Your task to perform on an android device: Search for a new lawnmower on Lowes.com Image 0: 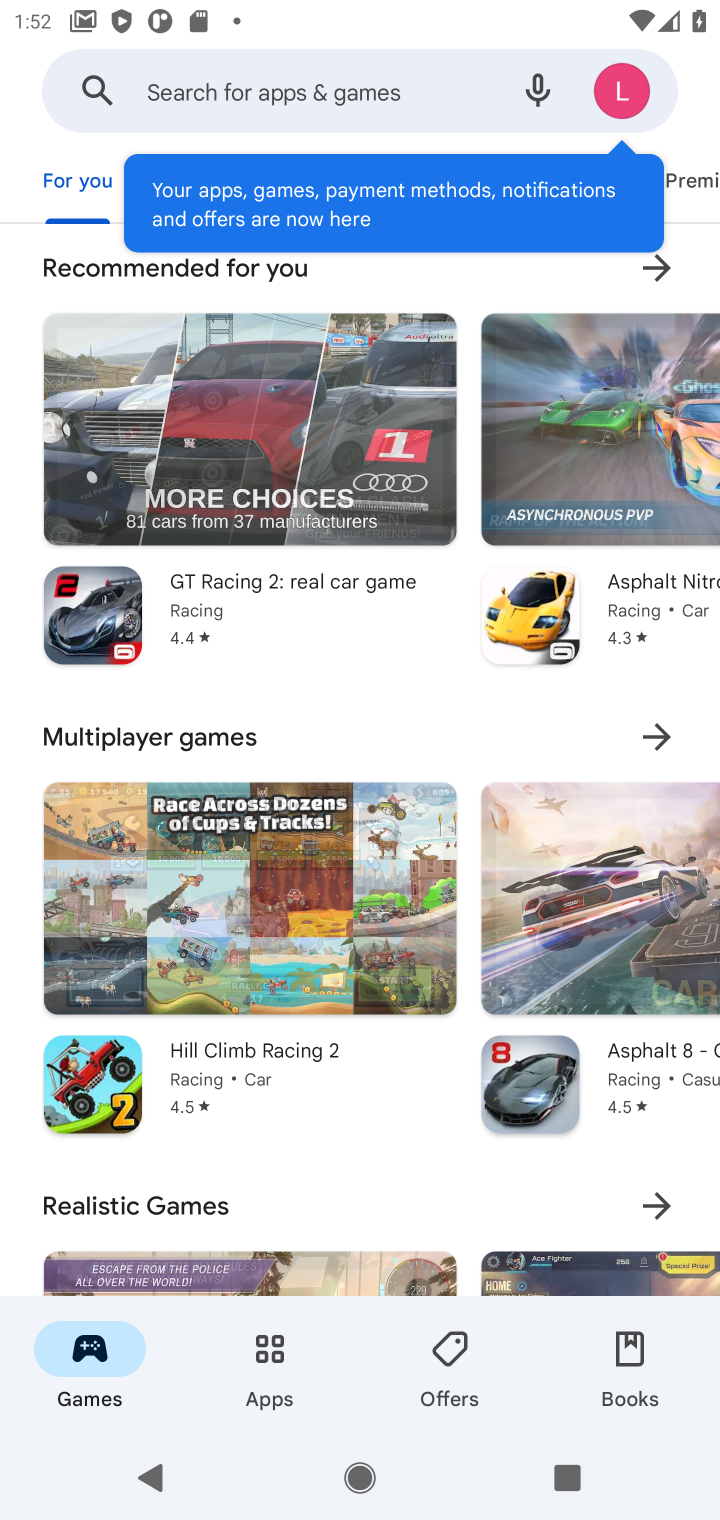
Step 0: press home button
Your task to perform on an android device: Search for a new lawnmower on Lowes.com Image 1: 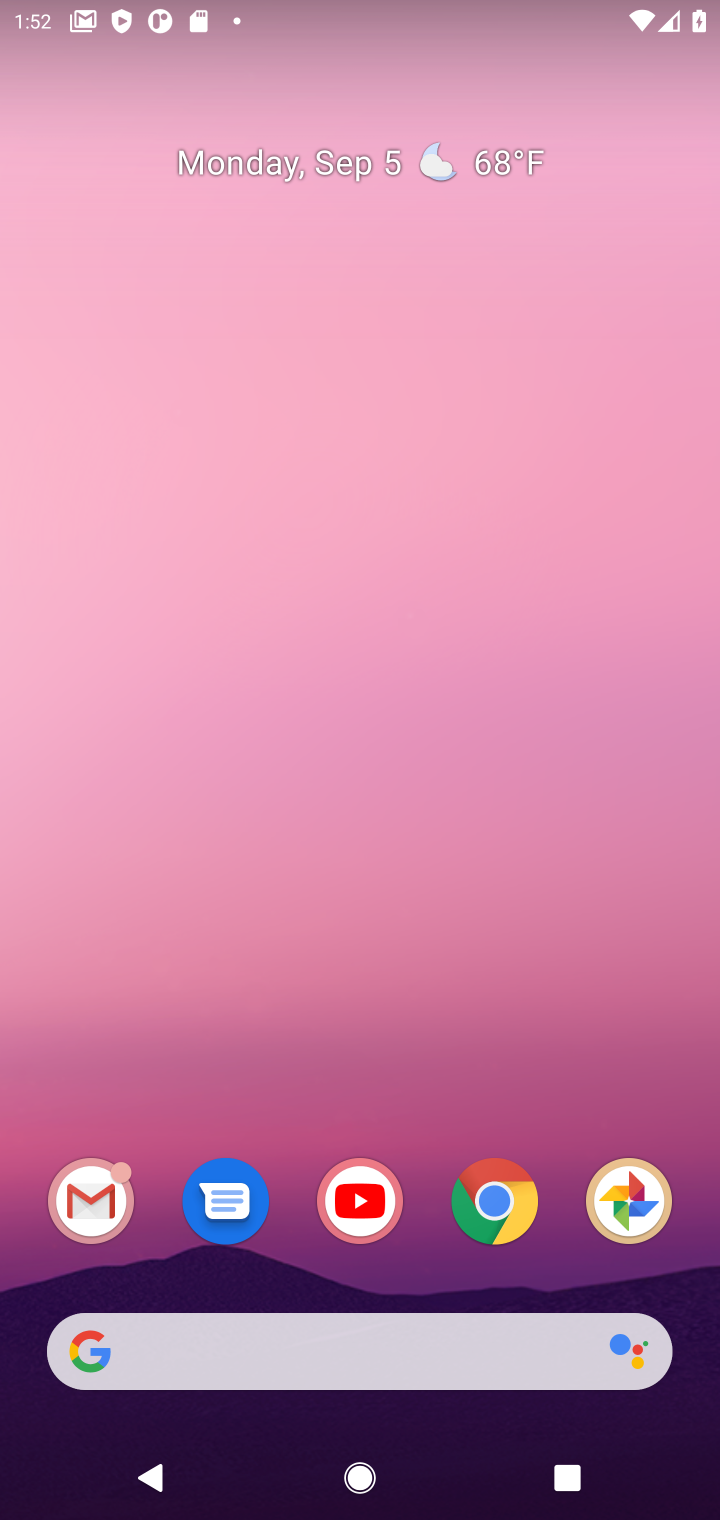
Step 1: click (501, 1216)
Your task to perform on an android device: Search for a new lawnmower on Lowes.com Image 2: 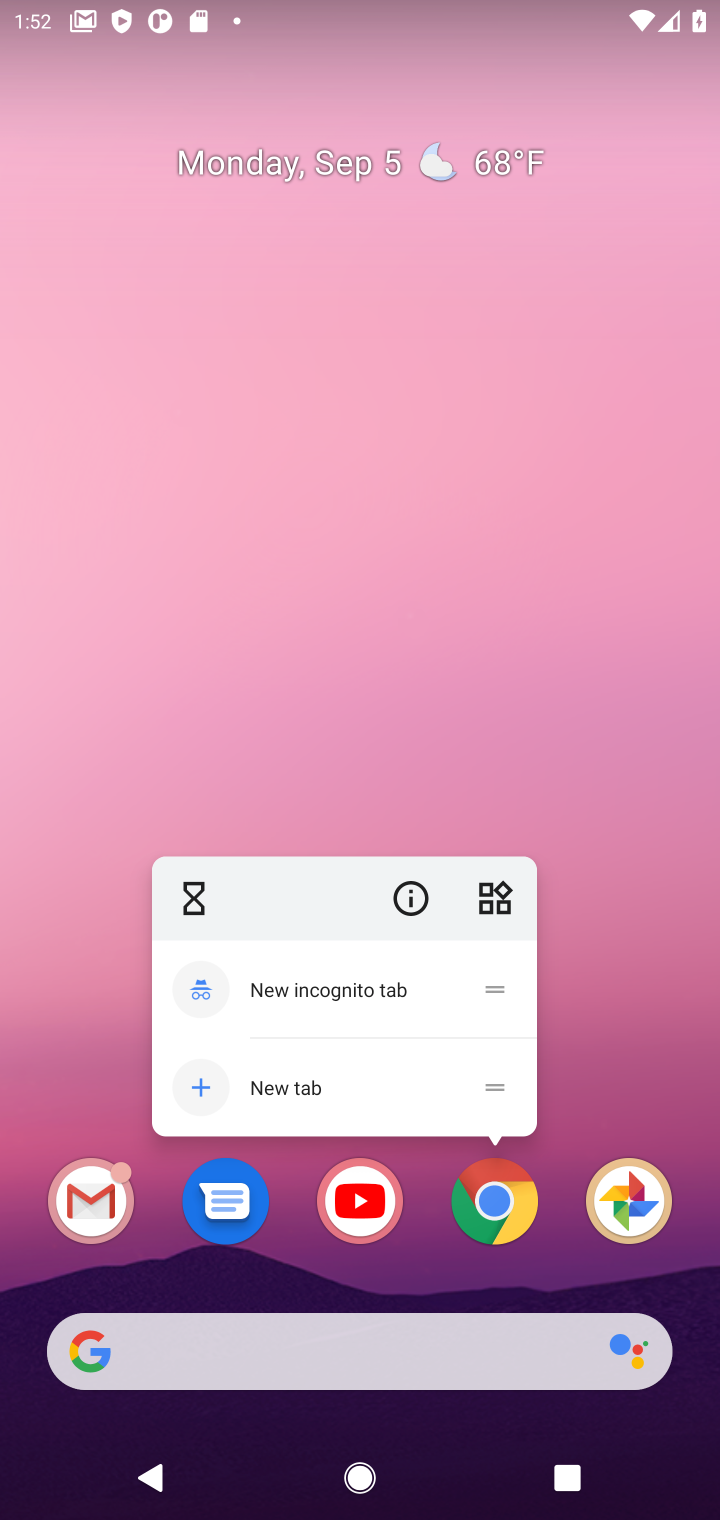
Step 2: click (501, 1221)
Your task to perform on an android device: Search for a new lawnmower on Lowes.com Image 3: 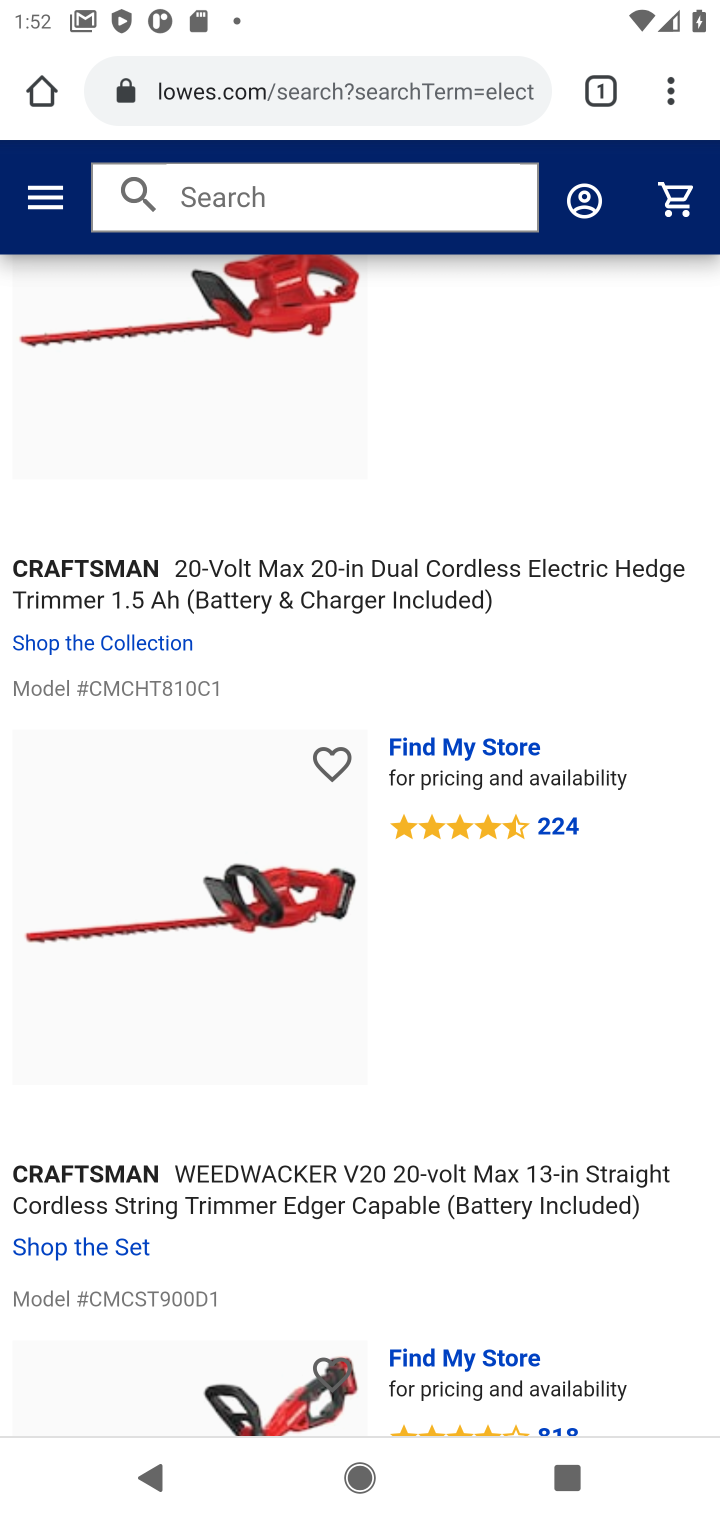
Step 3: click (423, 89)
Your task to perform on an android device: Search for a new lawnmower on Lowes.com Image 4: 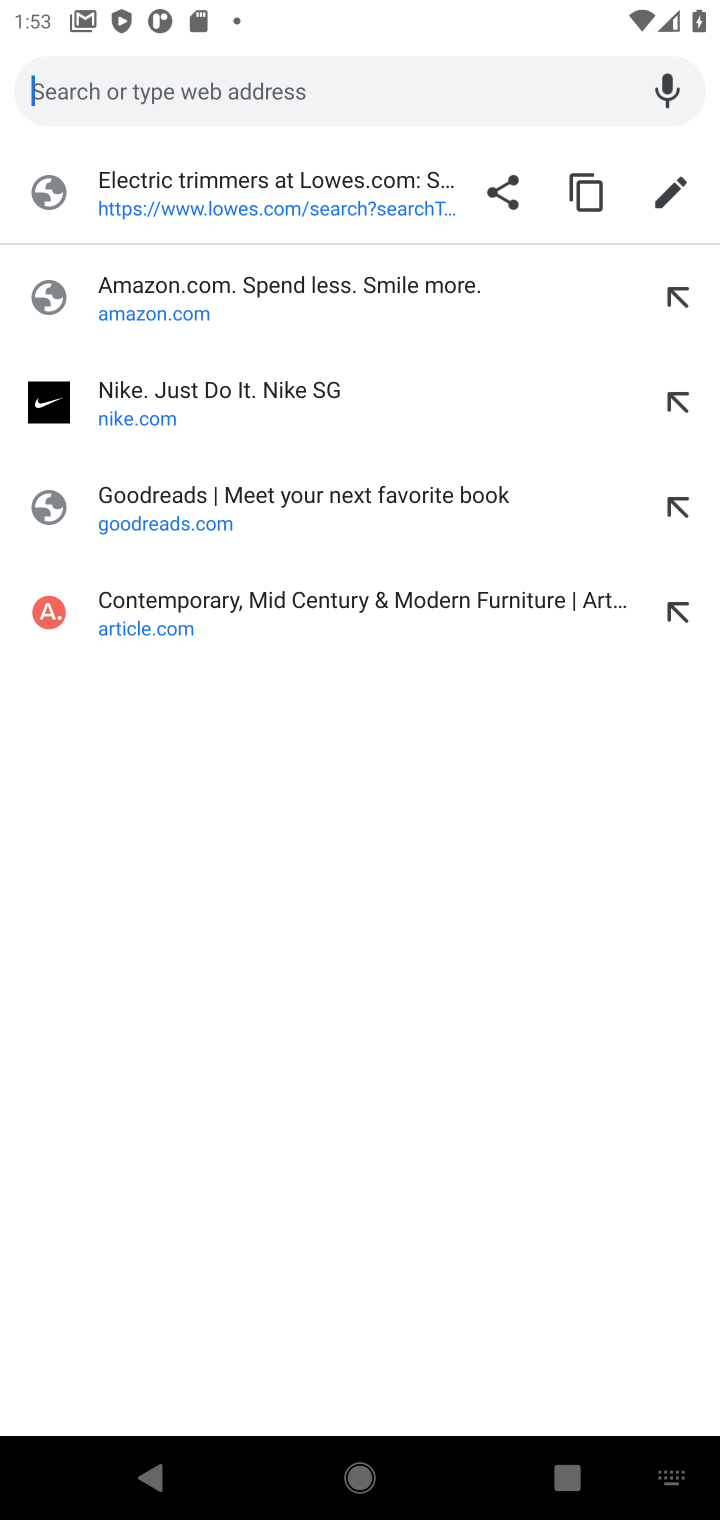
Step 4: type "Lowes.com"
Your task to perform on an android device: Search for a new lawnmower on Lowes.com Image 5: 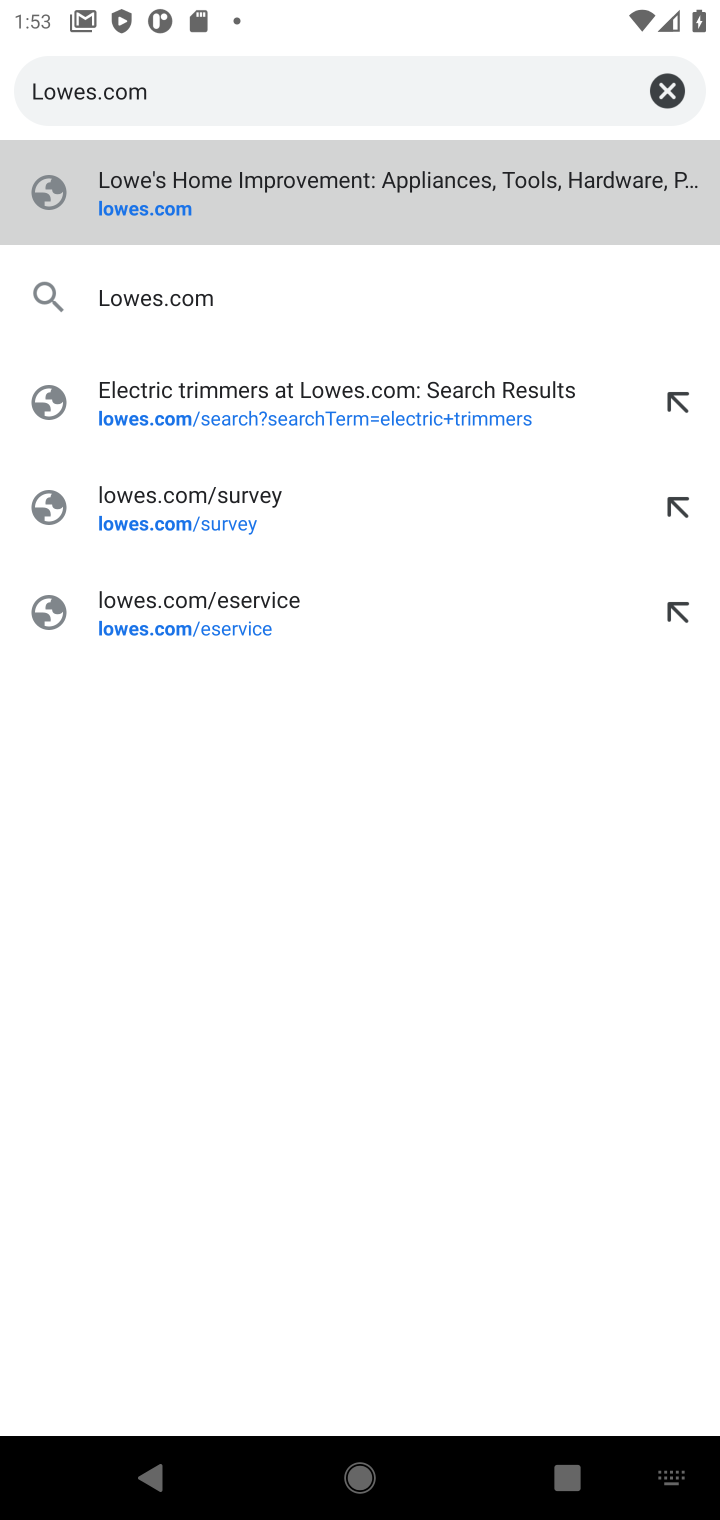
Step 5: press enter
Your task to perform on an android device: Search for a new lawnmower on Lowes.com Image 6: 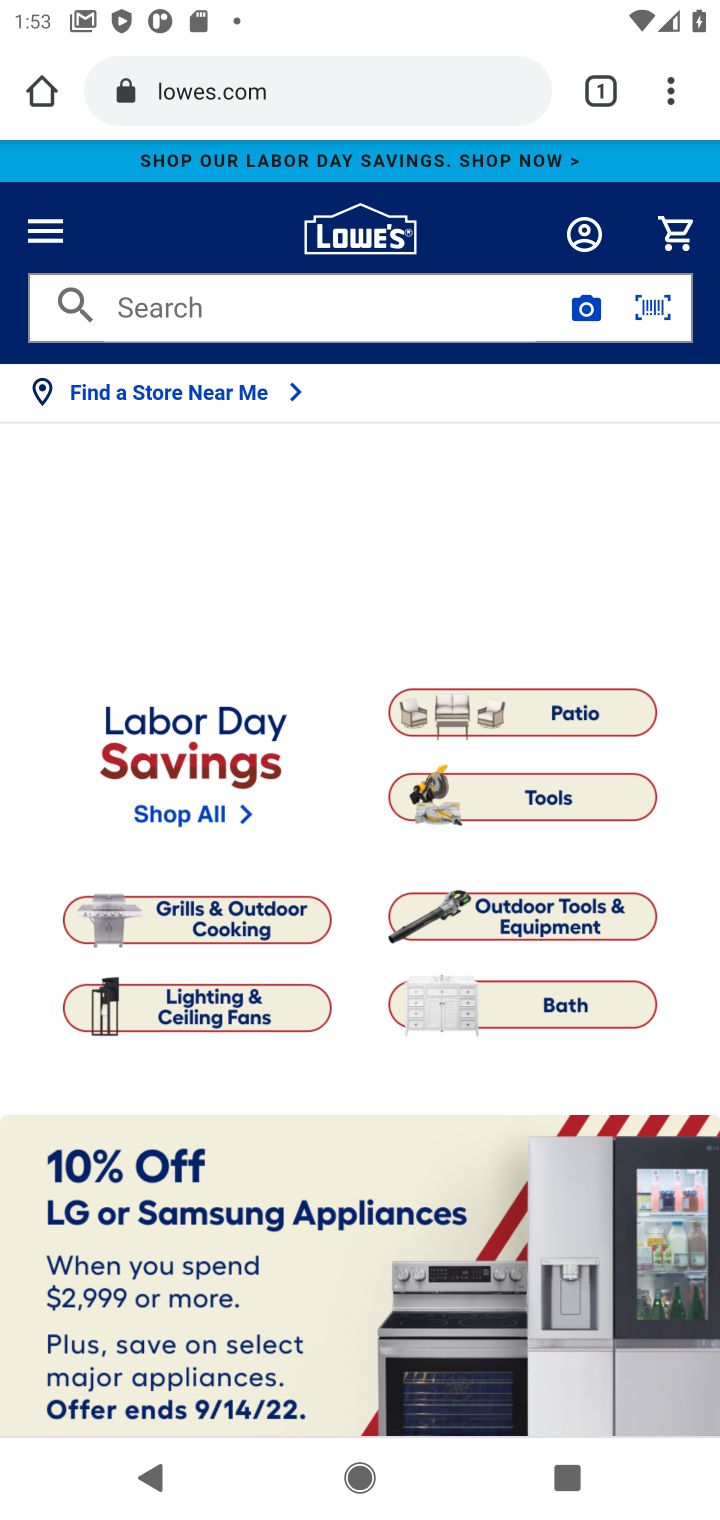
Step 6: click (295, 300)
Your task to perform on an android device: Search for a new lawnmower on Lowes.com Image 7: 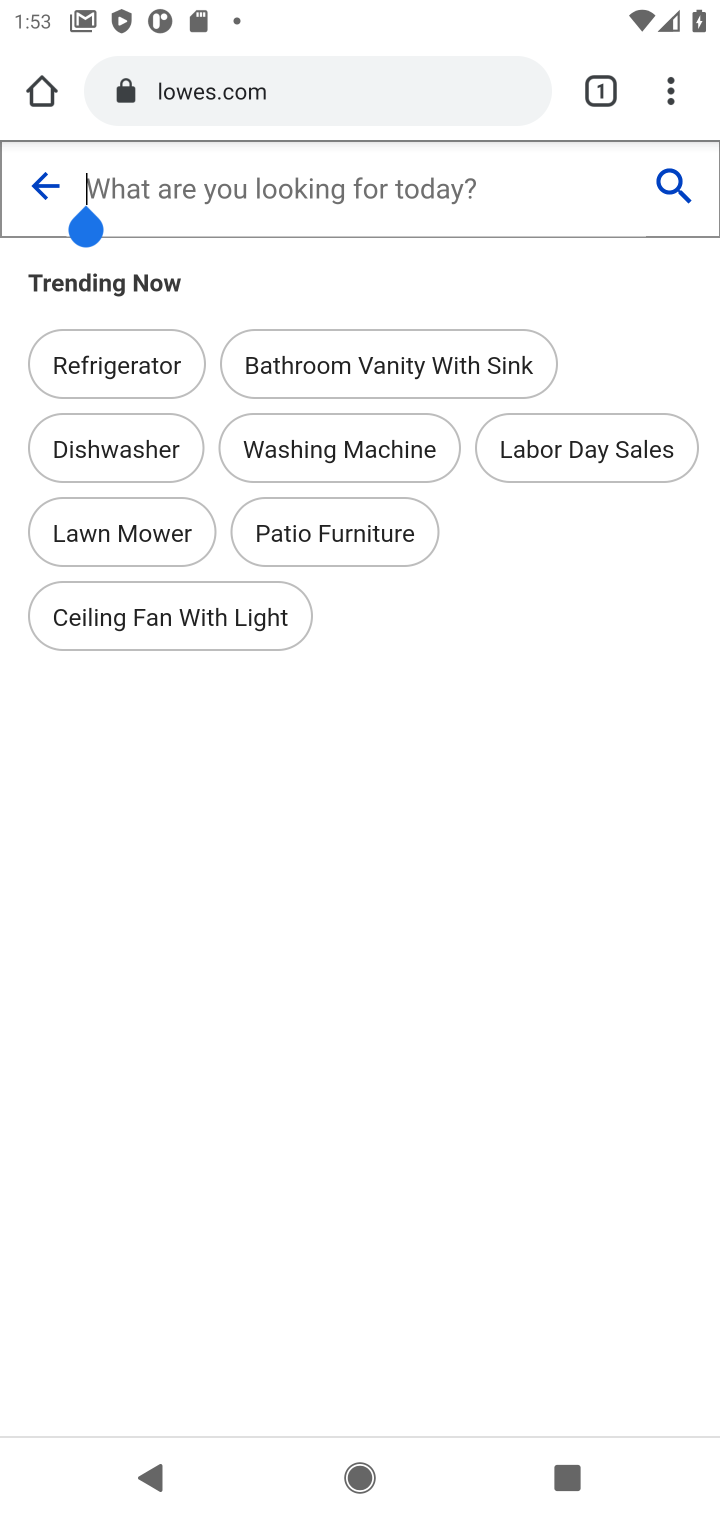
Step 7: type " lawnmower "
Your task to perform on an android device: Search for a new lawnmower on Lowes.com Image 8: 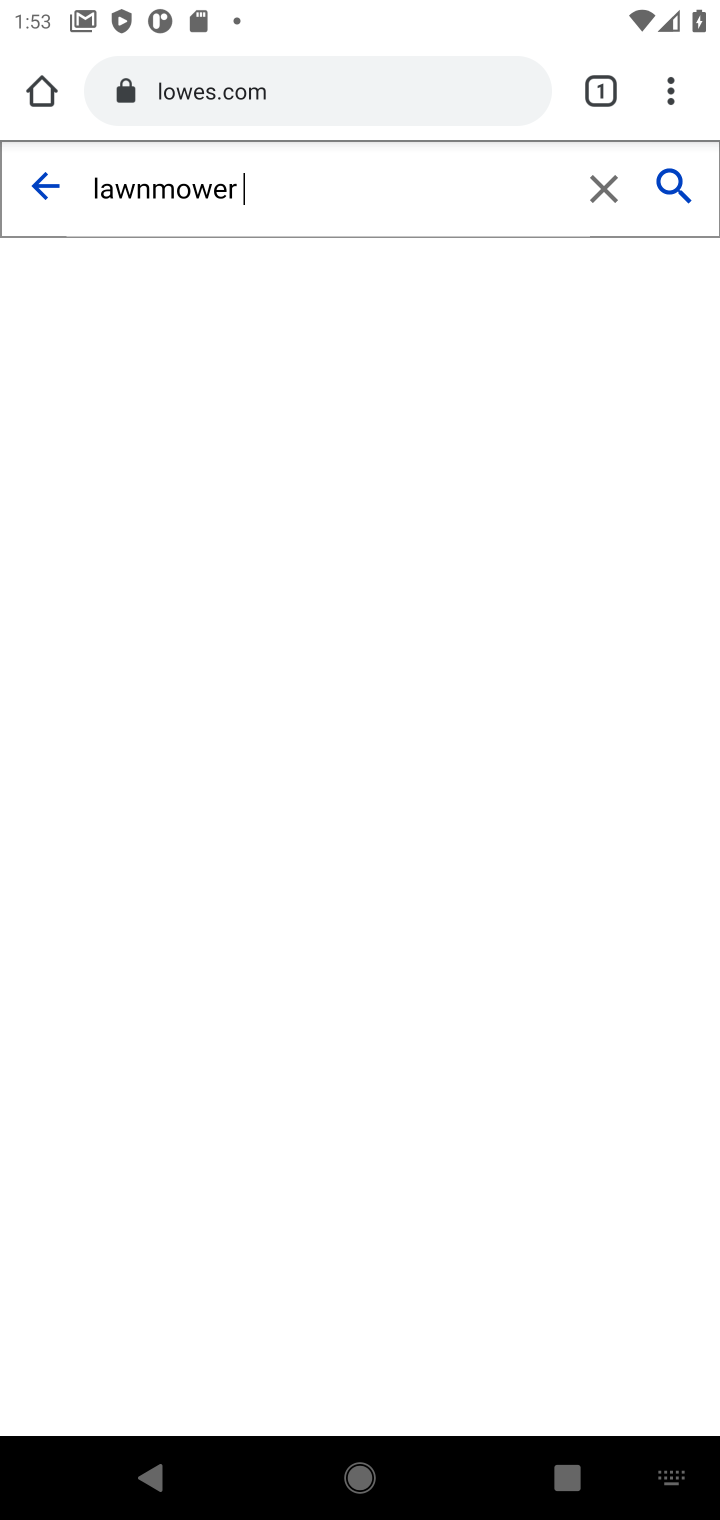
Step 8: press enter
Your task to perform on an android device: Search for a new lawnmower on Lowes.com Image 9: 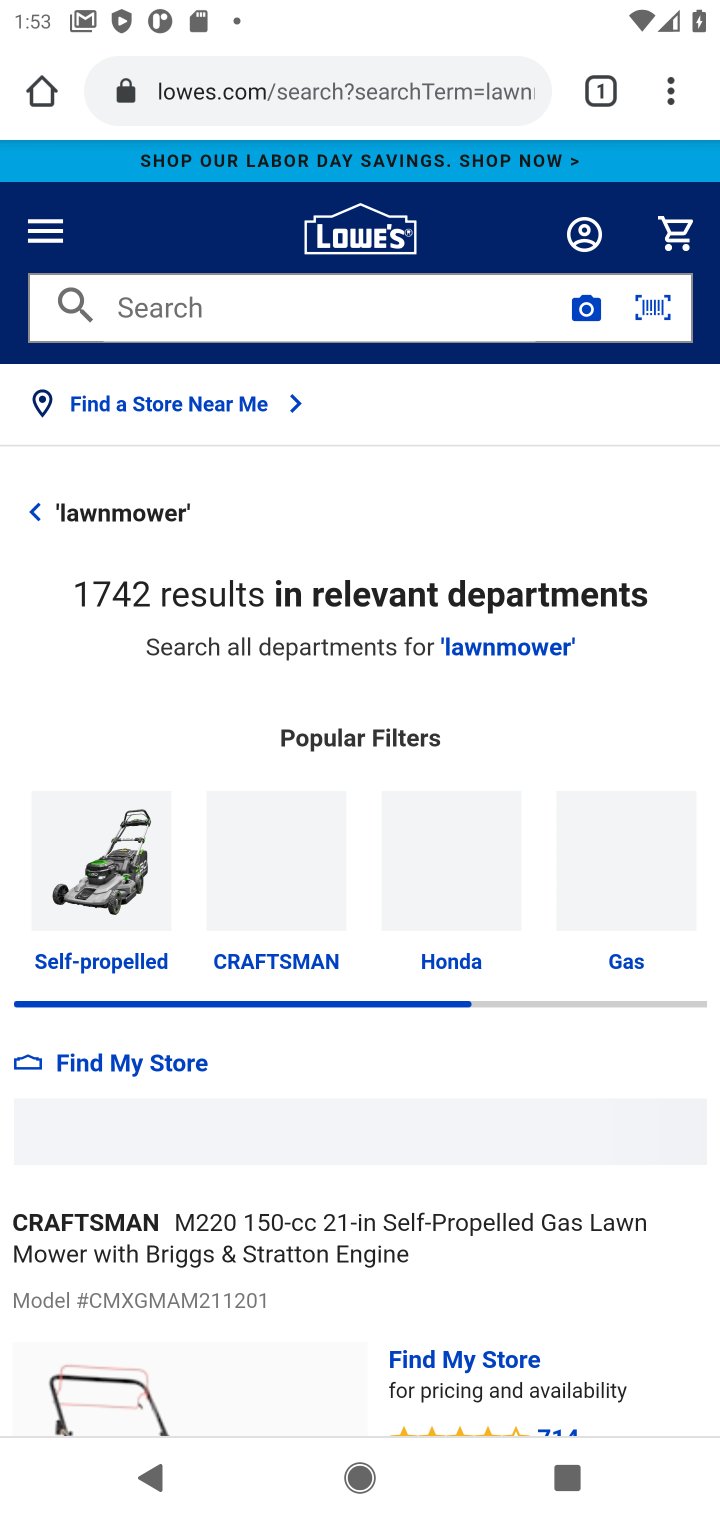
Step 9: task complete